Your task to perform on an android device: change the upload size in google photos Image 0: 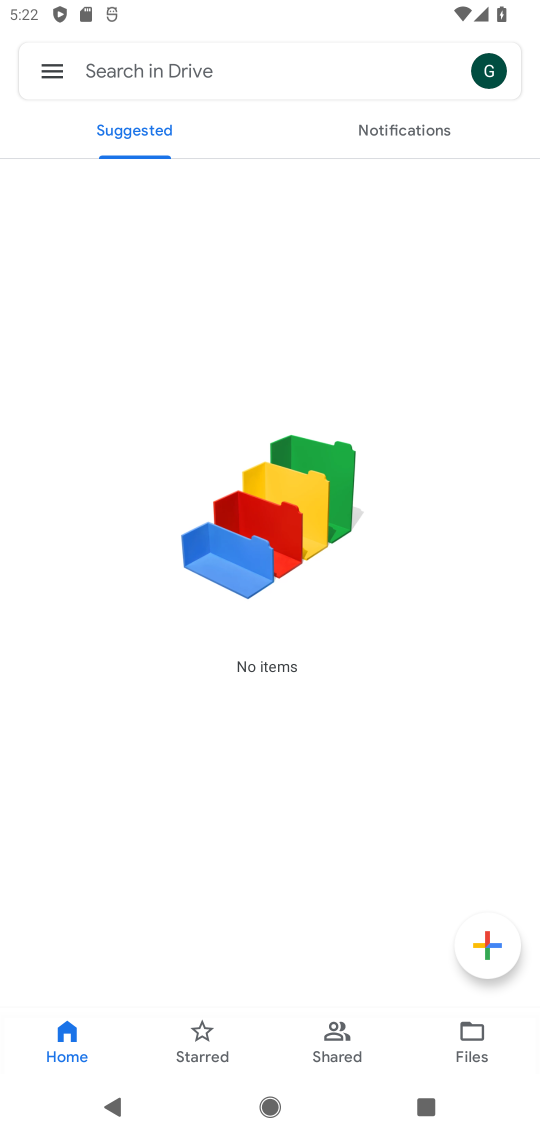
Step 0: press home button
Your task to perform on an android device: change the upload size in google photos Image 1: 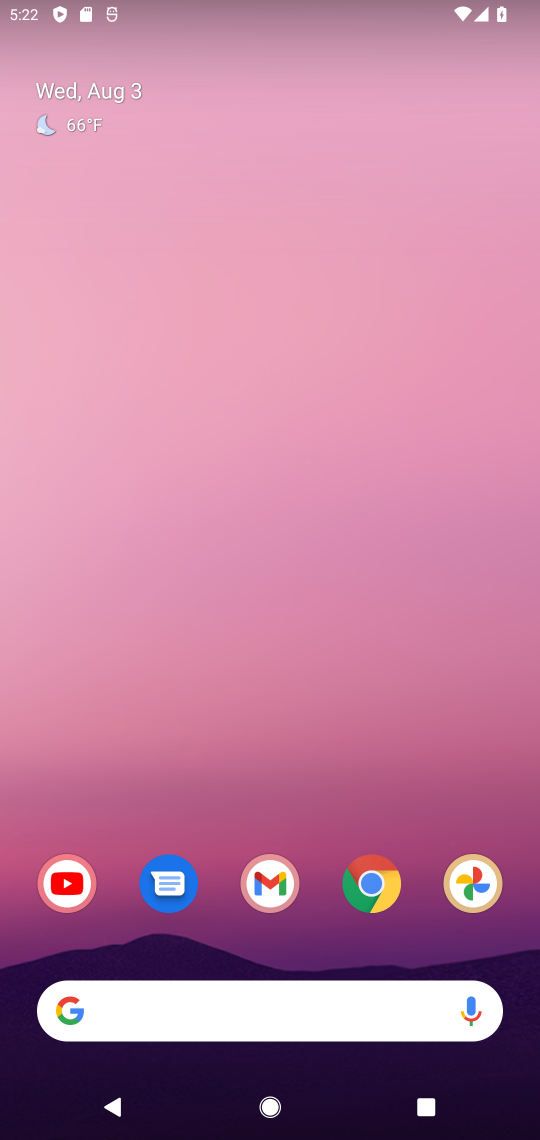
Step 1: drag from (228, 782) to (270, 248)
Your task to perform on an android device: change the upload size in google photos Image 2: 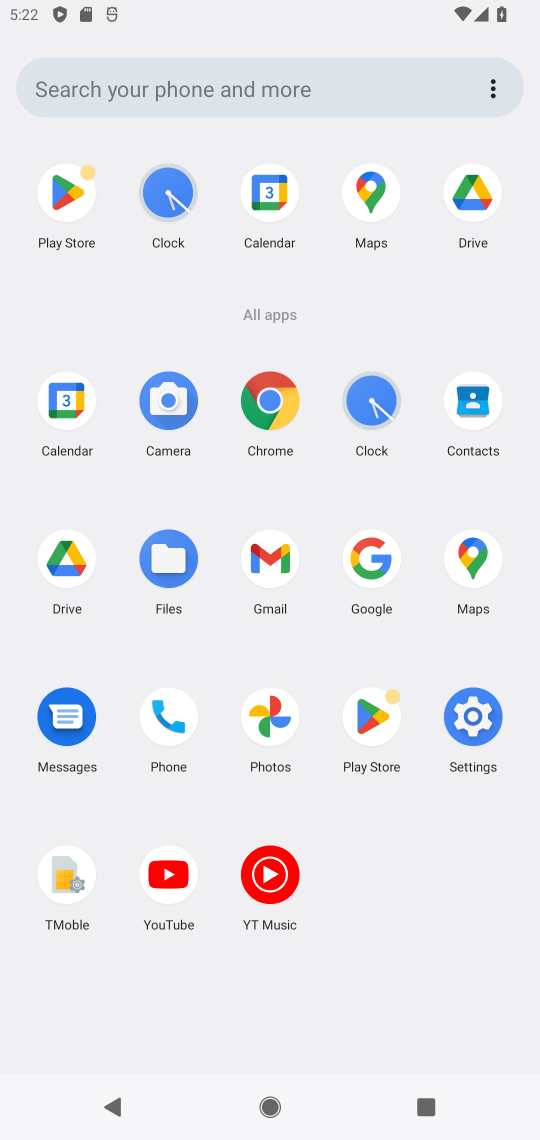
Step 2: click (275, 715)
Your task to perform on an android device: change the upload size in google photos Image 3: 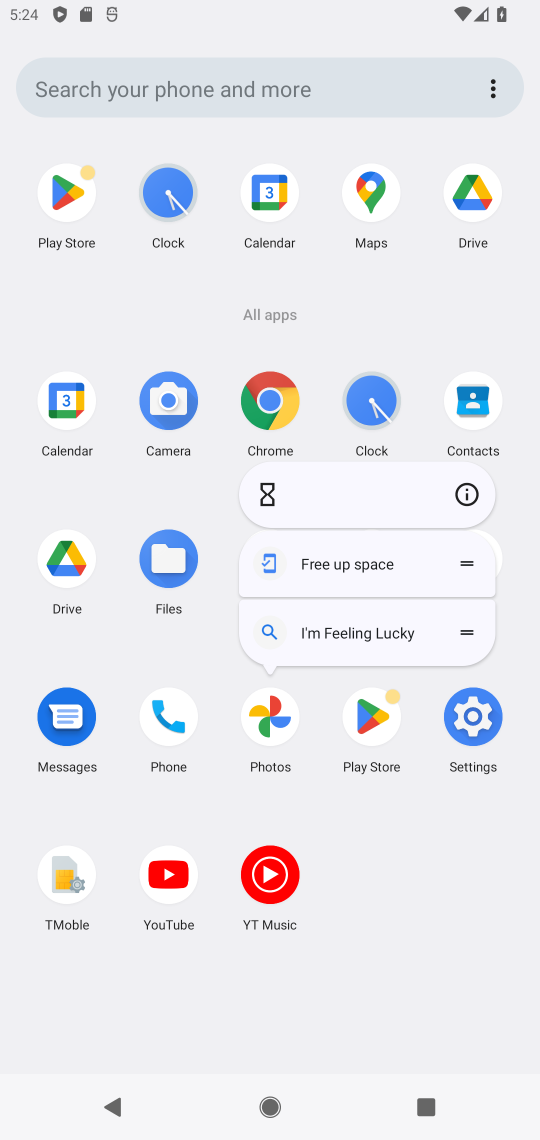
Step 3: click (272, 721)
Your task to perform on an android device: change the upload size in google photos Image 4: 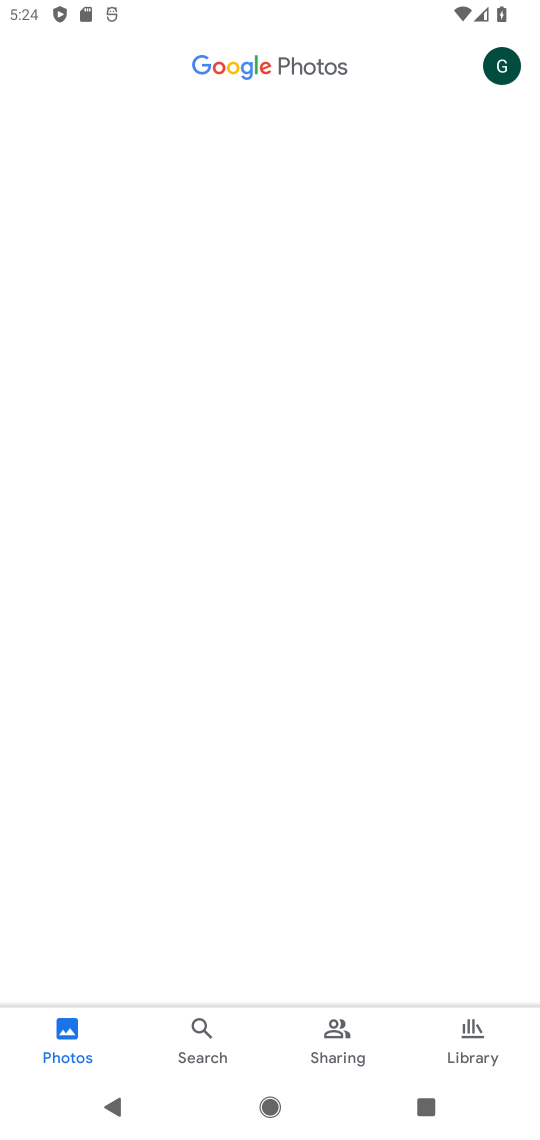
Step 4: click (272, 721)
Your task to perform on an android device: change the upload size in google photos Image 5: 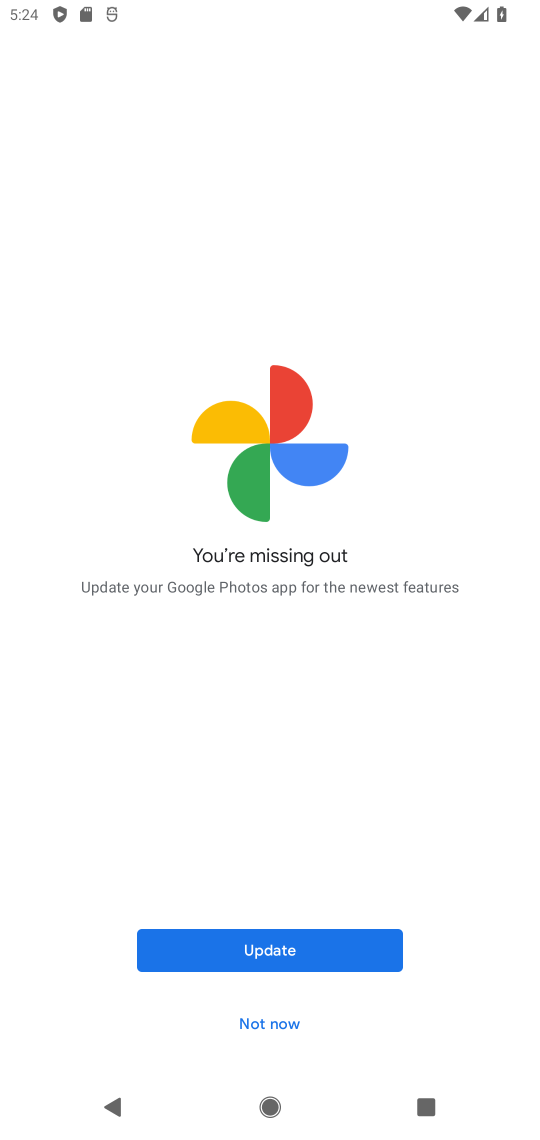
Step 5: click (297, 1019)
Your task to perform on an android device: change the upload size in google photos Image 6: 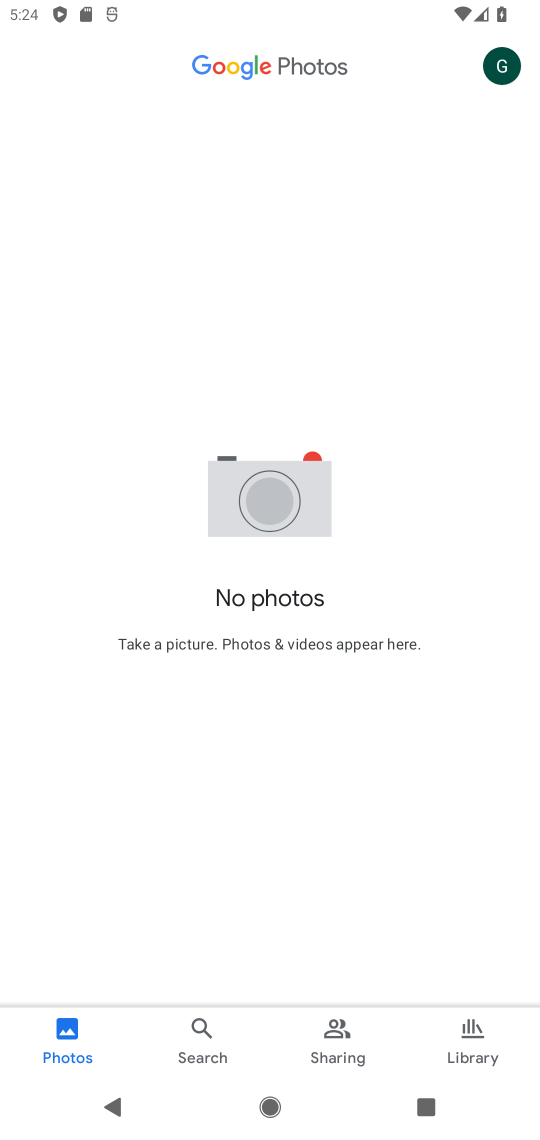
Step 6: click (514, 73)
Your task to perform on an android device: change the upload size in google photos Image 7: 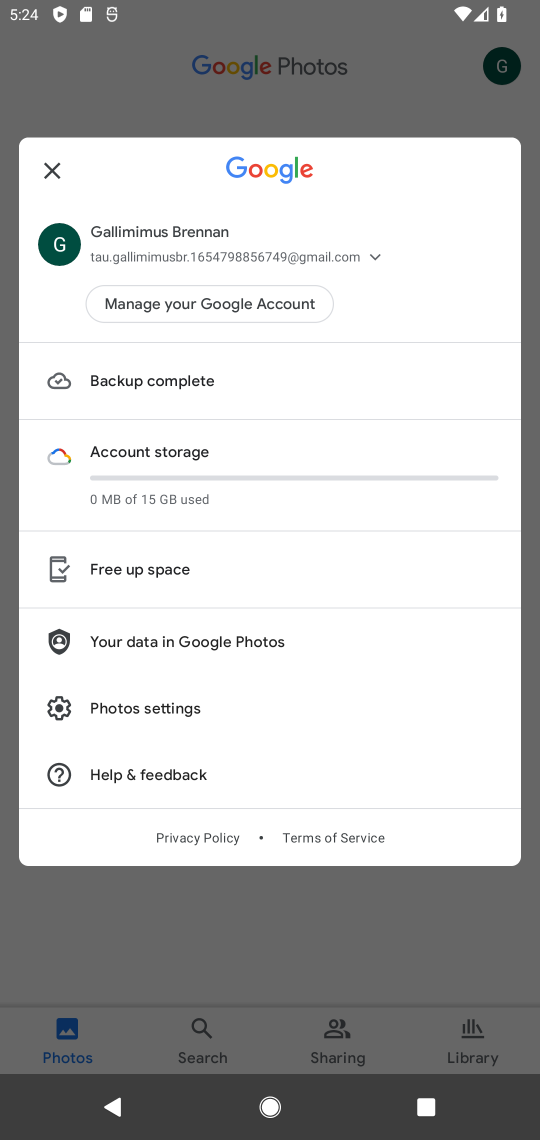
Step 7: click (146, 705)
Your task to perform on an android device: change the upload size in google photos Image 8: 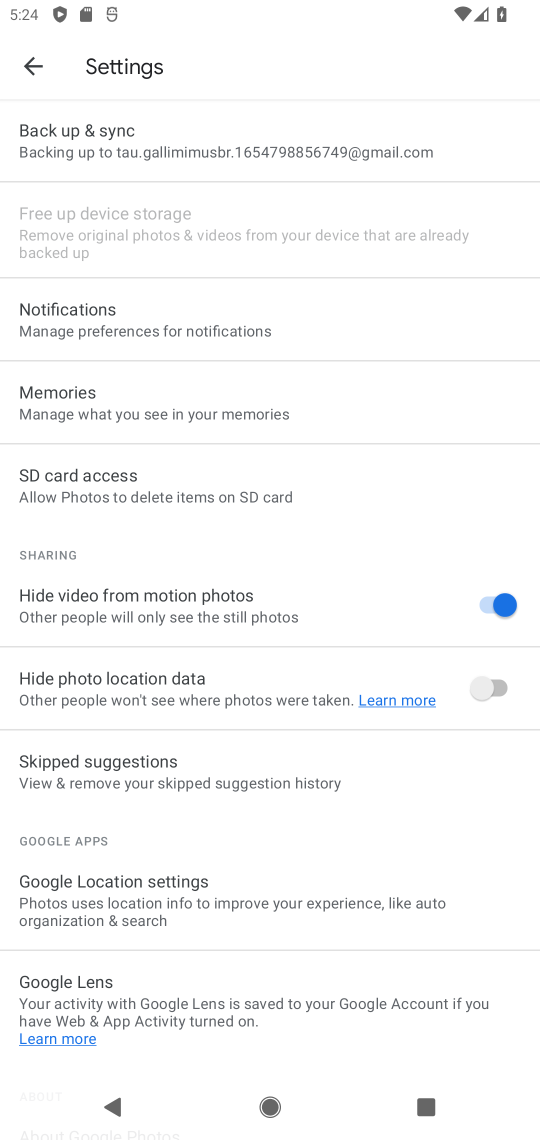
Step 8: click (91, 158)
Your task to perform on an android device: change the upload size in google photos Image 9: 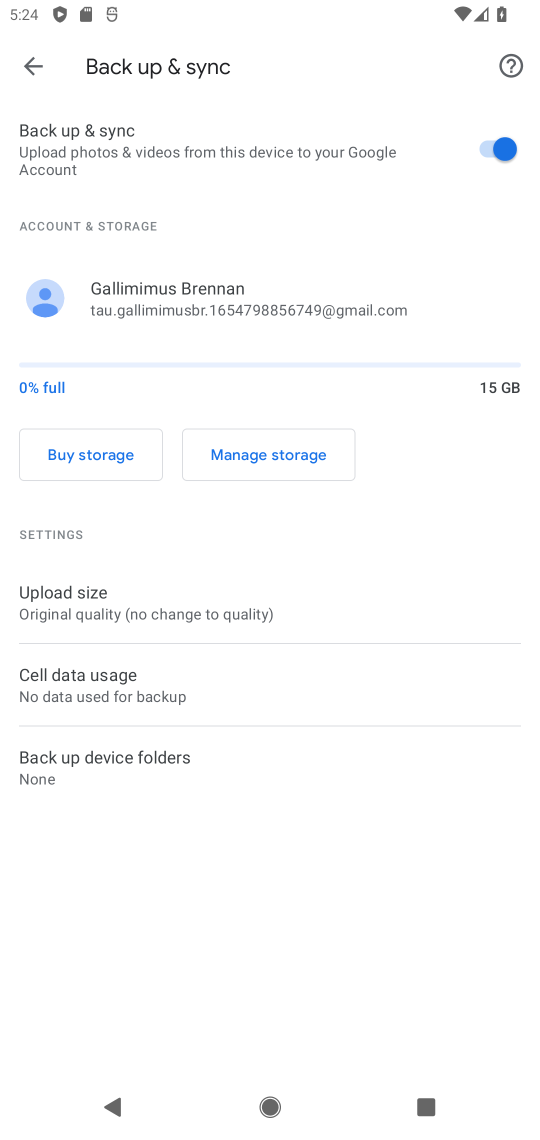
Step 9: click (117, 614)
Your task to perform on an android device: change the upload size in google photos Image 10: 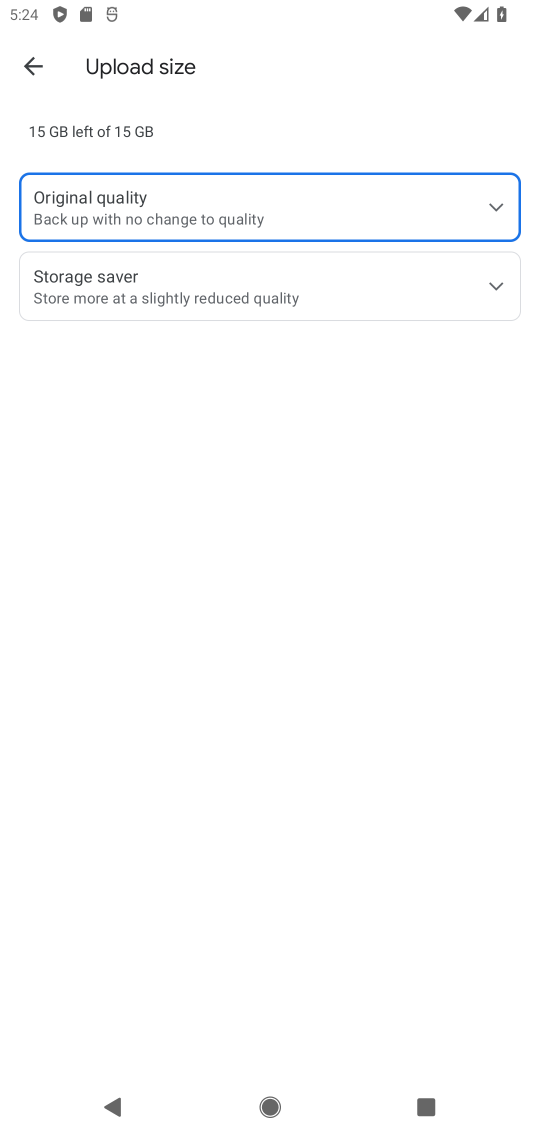
Step 10: click (119, 268)
Your task to perform on an android device: change the upload size in google photos Image 11: 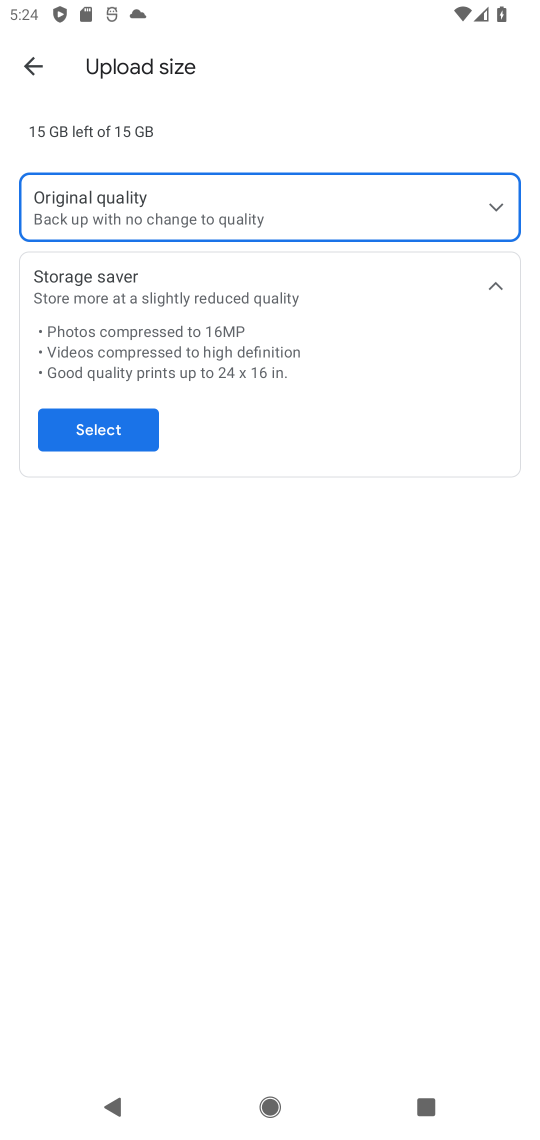
Step 11: click (88, 437)
Your task to perform on an android device: change the upload size in google photos Image 12: 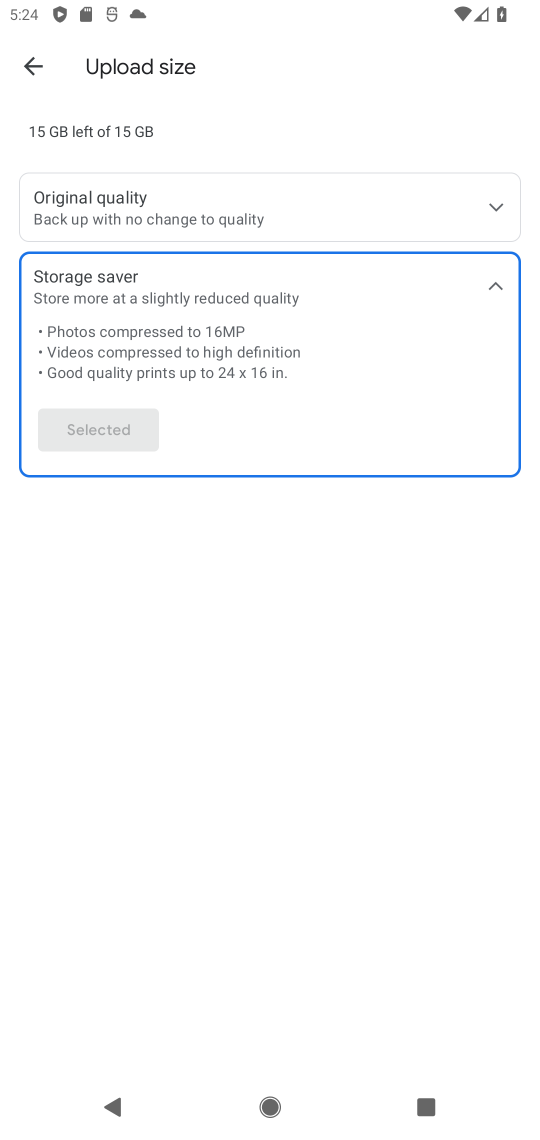
Step 12: task complete